Your task to perform on an android device: open chrome and create a bookmark for the current page Image 0: 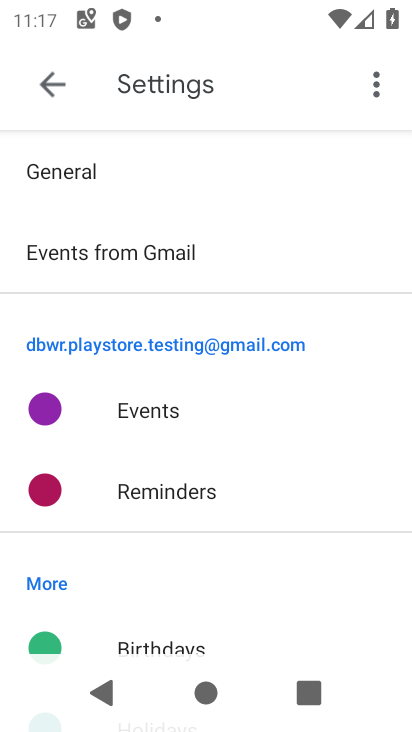
Step 0: press home button
Your task to perform on an android device: open chrome and create a bookmark for the current page Image 1: 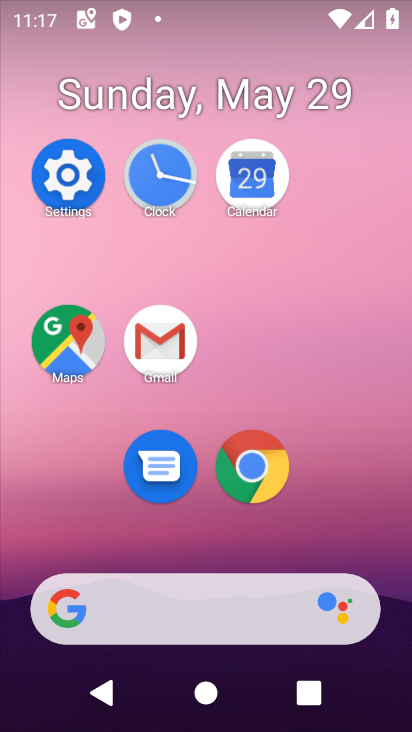
Step 1: click (254, 470)
Your task to perform on an android device: open chrome and create a bookmark for the current page Image 2: 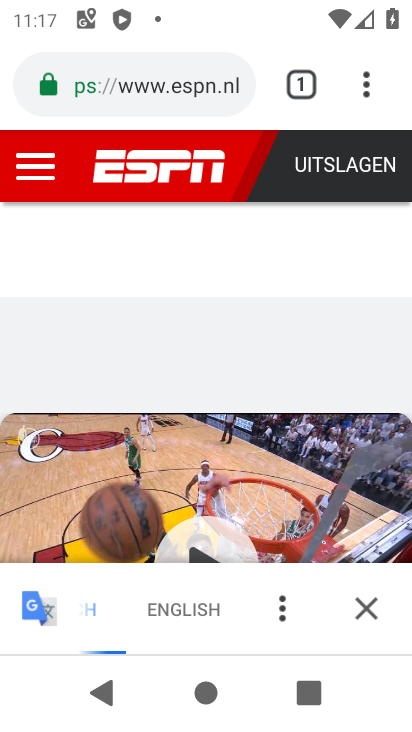
Step 2: click (360, 94)
Your task to perform on an android device: open chrome and create a bookmark for the current page Image 3: 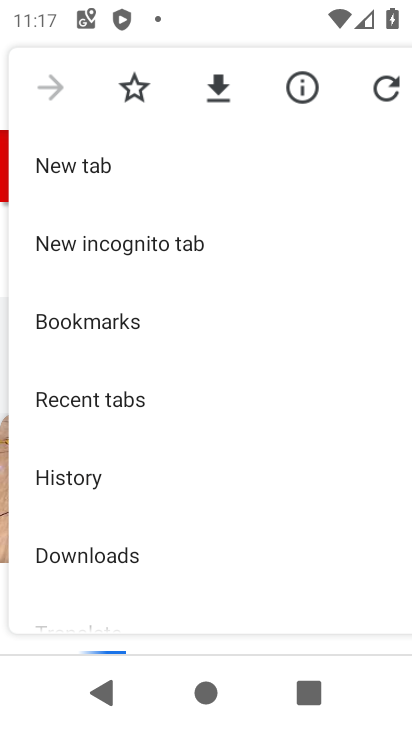
Step 3: drag from (244, 498) to (260, 187)
Your task to perform on an android device: open chrome and create a bookmark for the current page Image 4: 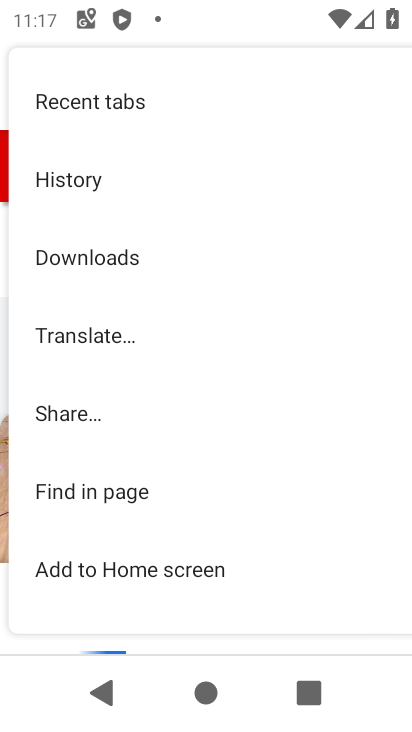
Step 4: drag from (271, 273) to (252, 460)
Your task to perform on an android device: open chrome and create a bookmark for the current page Image 5: 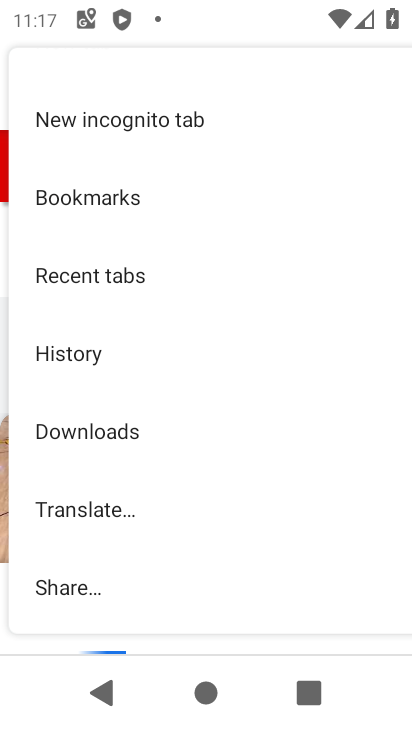
Step 5: press back button
Your task to perform on an android device: open chrome and create a bookmark for the current page Image 6: 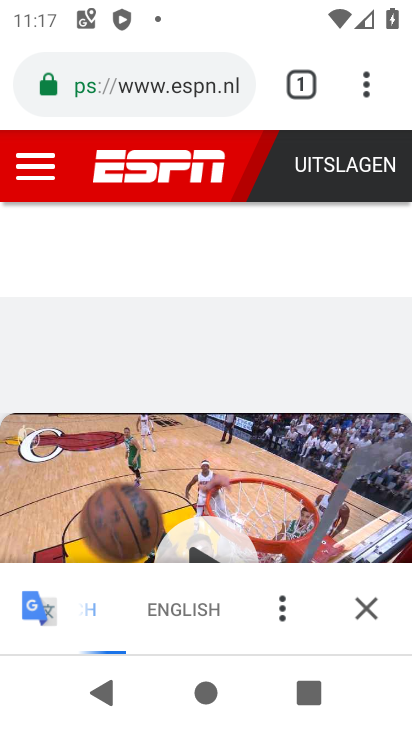
Step 6: click (363, 91)
Your task to perform on an android device: open chrome and create a bookmark for the current page Image 7: 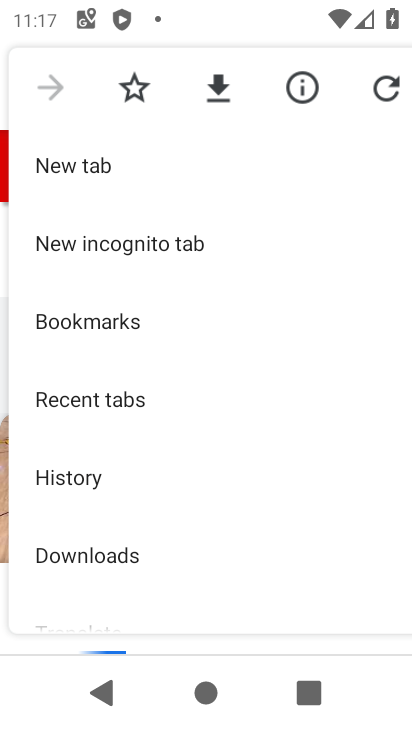
Step 7: click (124, 90)
Your task to perform on an android device: open chrome and create a bookmark for the current page Image 8: 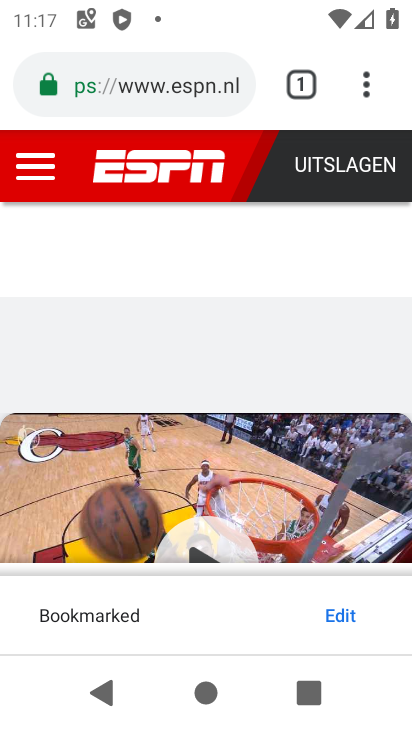
Step 8: task complete